Your task to perform on an android device: Open CNN.com Image 0: 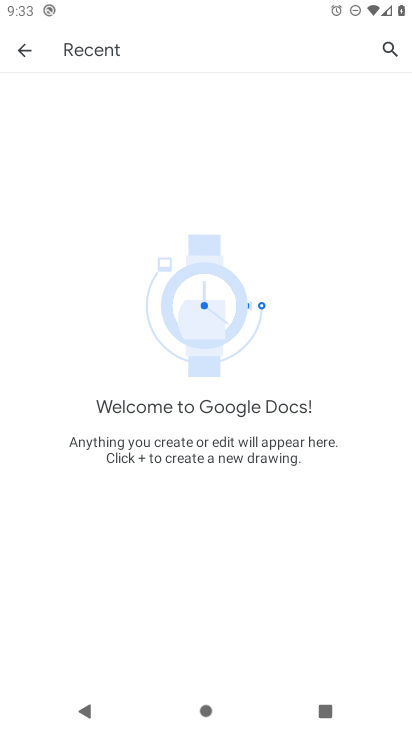
Step 0: drag from (24, 698) to (221, 293)
Your task to perform on an android device: Open CNN.com Image 1: 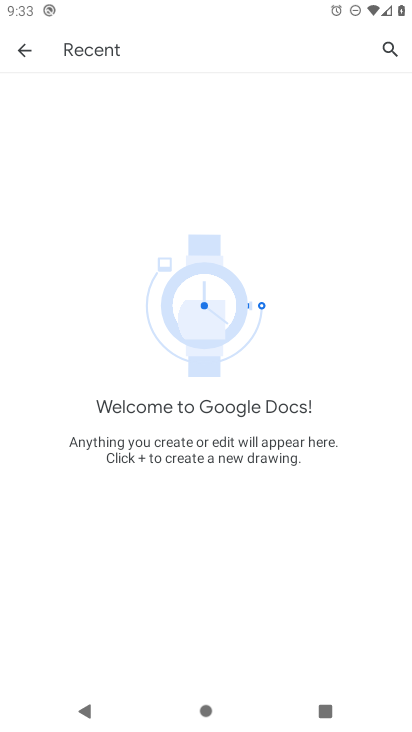
Step 1: press home button
Your task to perform on an android device: Open CNN.com Image 2: 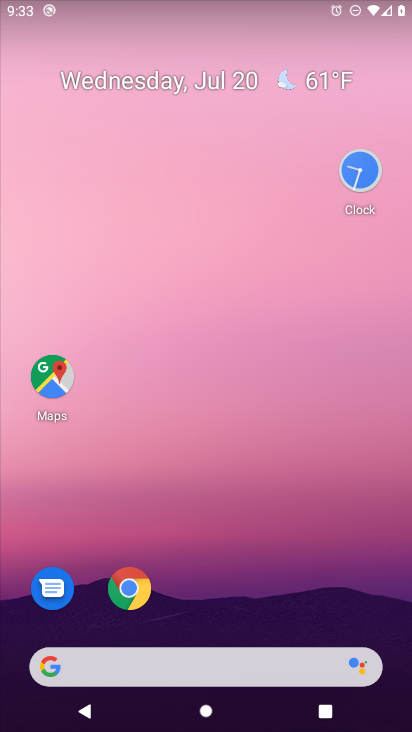
Step 2: click (119, 655)
Your task to perform on an android device: Open CNN.com Image 3: 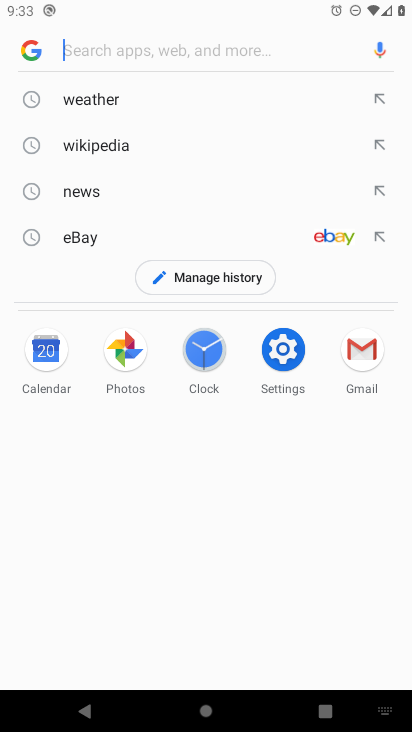
Step 3: type "CNN.com"
Your task to perform on an android device: Open CNN.com Image 4: 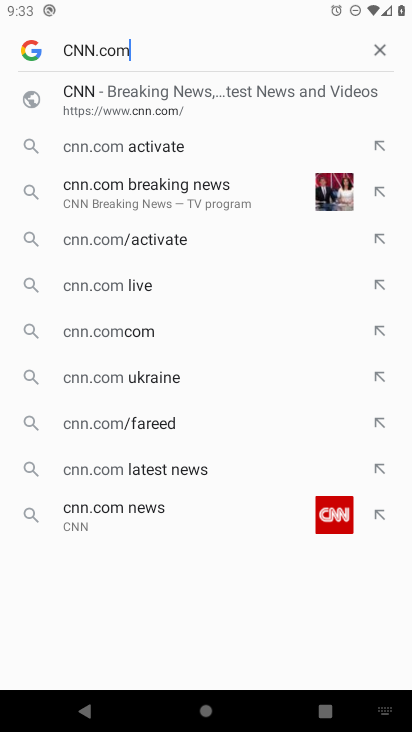
Step 4: type ""
Your task to perform on an android device: Open CNN.com Image 5: 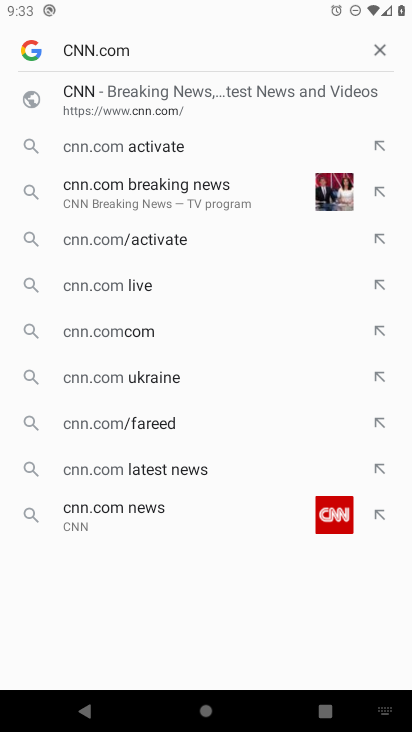
Step 5: type ""
Your task to perform on an android device: Open CNN.com Image 6: 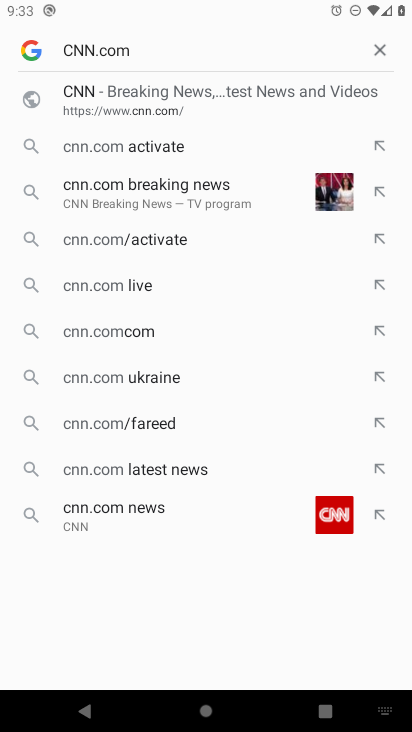
Step 6: task complete